Your task to perform on an android device: Go to eBay Image 0: 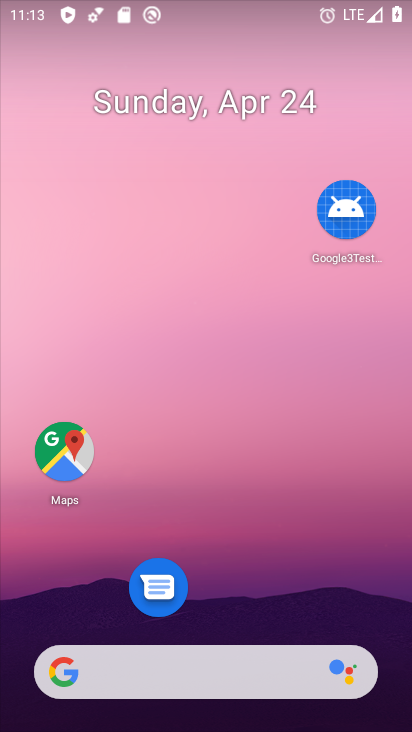
Step 0: drag from (315, 554) to (260, 125)
Your task to perform on an android device: Go to eBay Image 1: 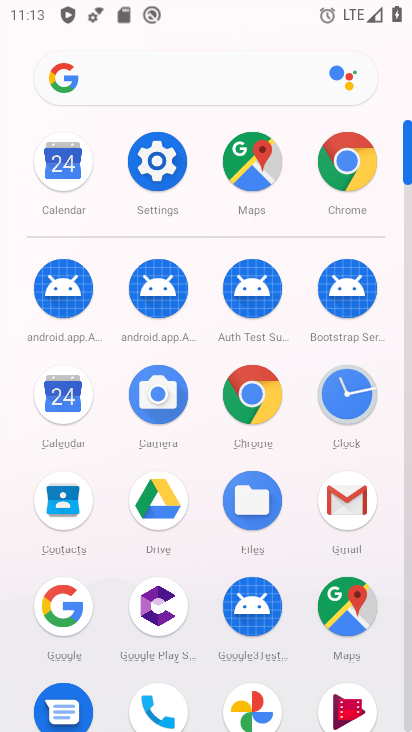
Step 1: click (249, 403)
Your task to perform on an android device: Go to eBay Image 2: 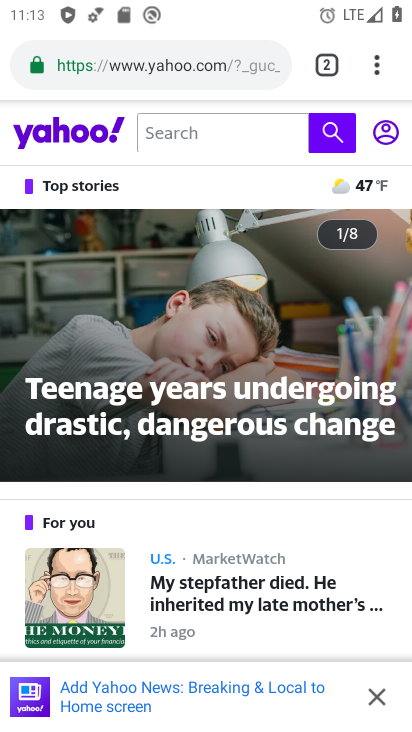
Step 2: click (213, 71)
Your task to perform on an android device: Go to eBay Image 3: 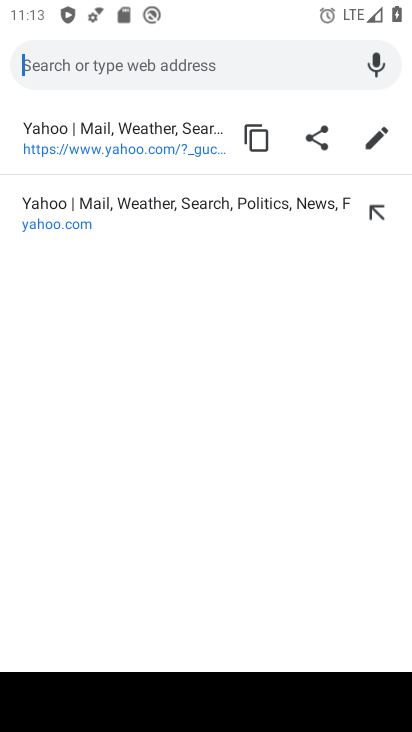
Step 3: type "ebay"
Your task to perform on an android device: Go to eBay Image 4: 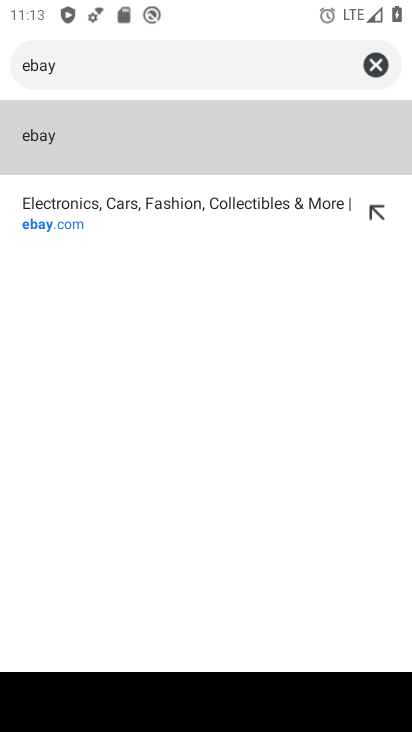
Step 4: click (77, 211)
Your task to perform on an android device: Go to eBay Image 5: 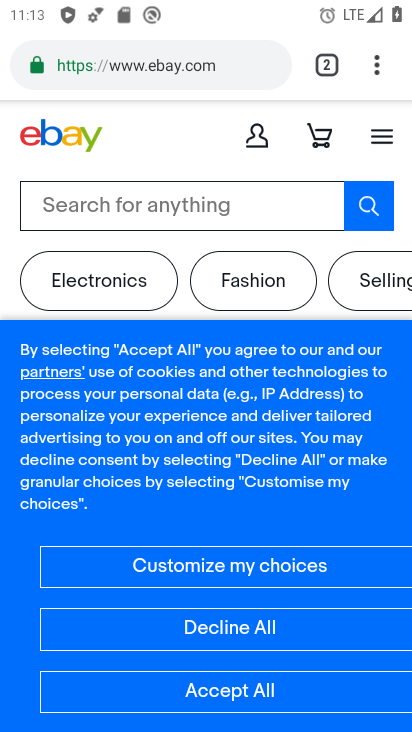
Step 5: task complete